Your task to perform on an android device: Go to Android settings Image 0: 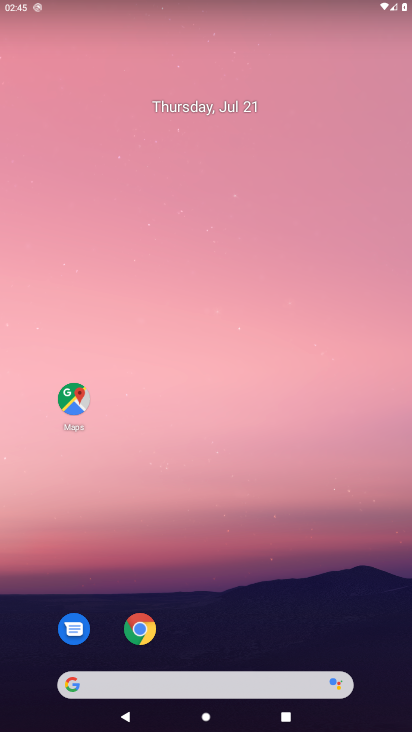
Step 0: drag from (33, 638) to (70, 240)
Your task to perform on an android device: Go to Android settings Image 1: 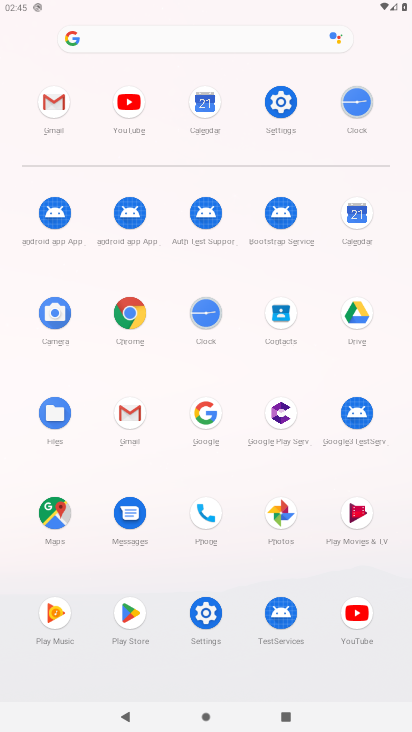
Step 1: click (197, 615)
Your task to perform on an android device: Go to Android settings Image 2: 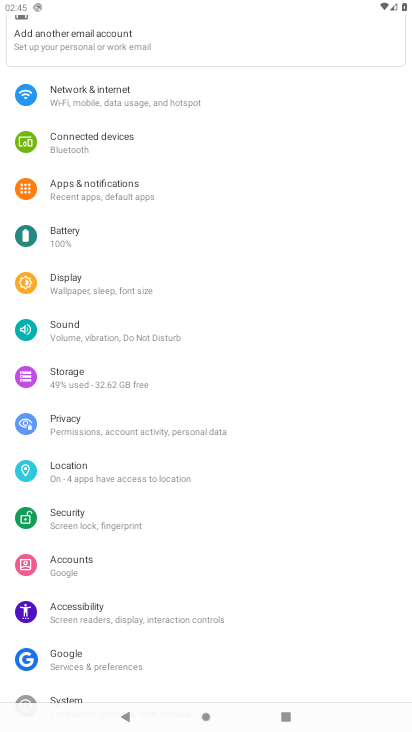
Step 2: drag from (157, 630) to (134, 312)
Your task to perform on an android device: Go to Android settings Image 3: 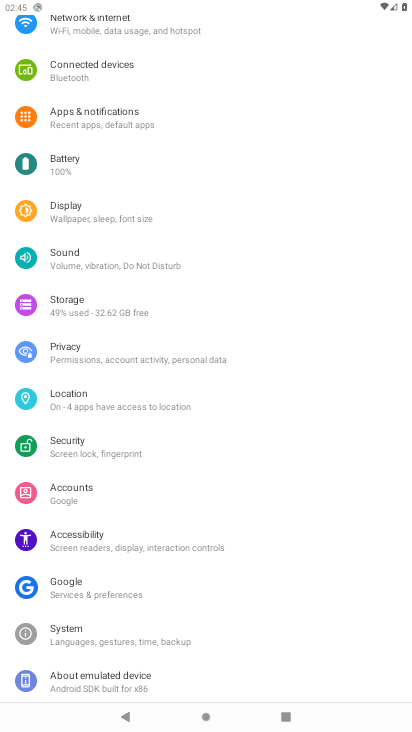
Step 3: click (89, 675)
Your task to perform on an android device: Go to Android settings Image 4: 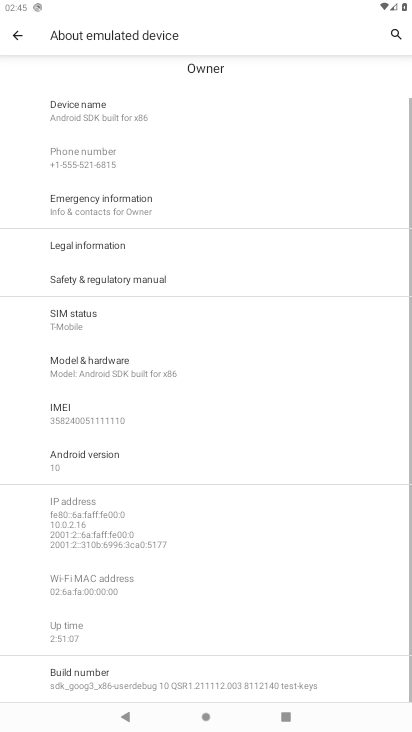
Step 4: click (85, 452)
Your task to perform on an android device: Go to Android settings Image 5: 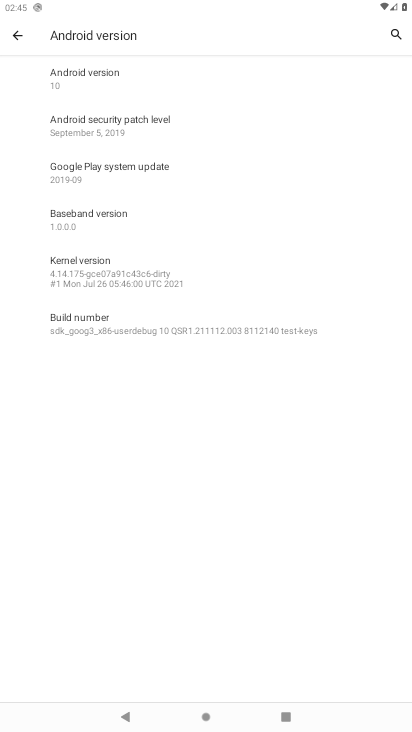
Step 5: task complete